Your task to perform on an android device: Open Wikipedia Image 0: 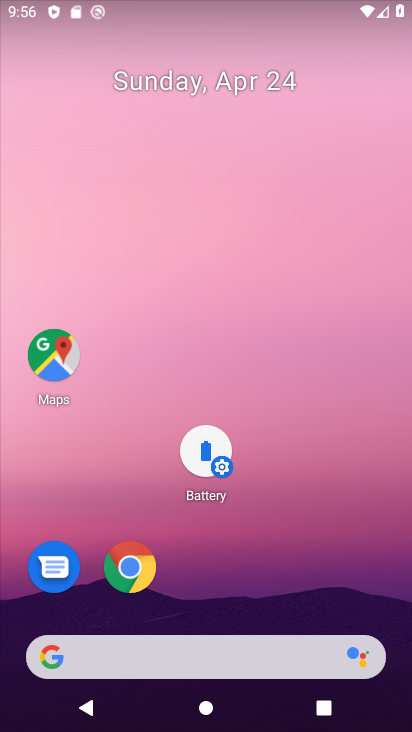
Step 0: drag from (55, 556) to (255, 147)
Your task to perform on an android device: Open Wikipedia Image 1: 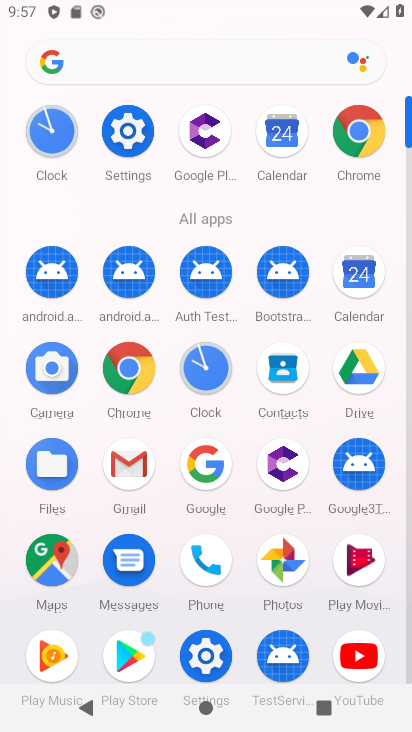
Step 1: task complete